Your task to perform on an android device: Open CNN.com Image 0: 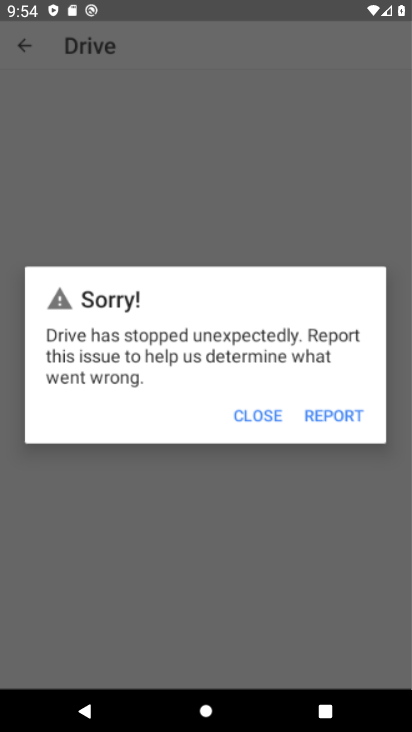
Step 0: press home button
Your task to perform on an android device: Open CNN.com Image 1: 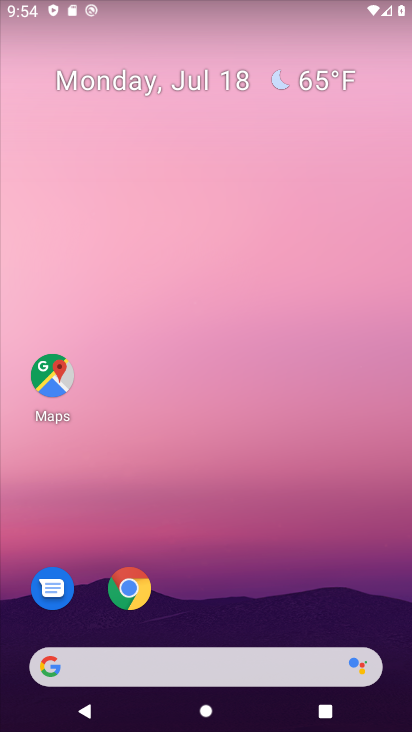
Step 1: click (42, 677)
Your task to perform on an android device: Open CNN.com Image 2: 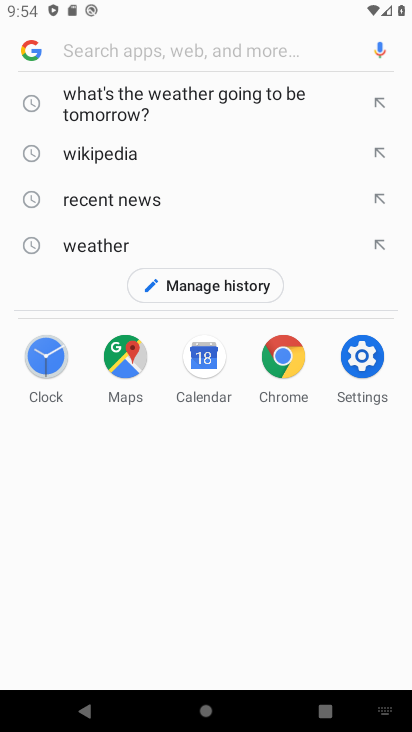
Step 2: type "CNN.com"
Your task to perform on an android device: Open CNN.com Image 3: 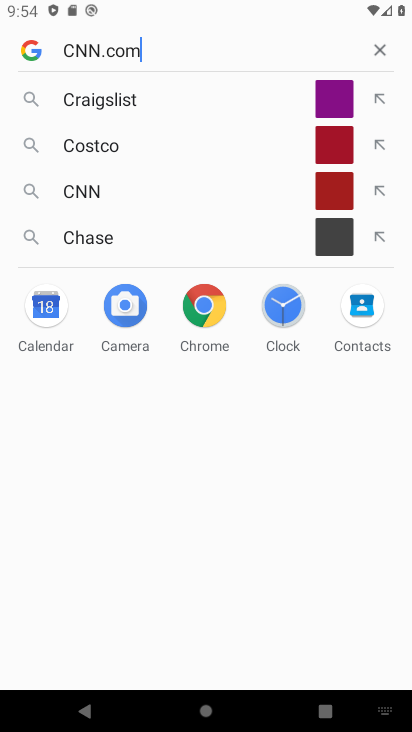
Step 3: press enter
Your task to perform on an android device: Open CNN.com Image 4: 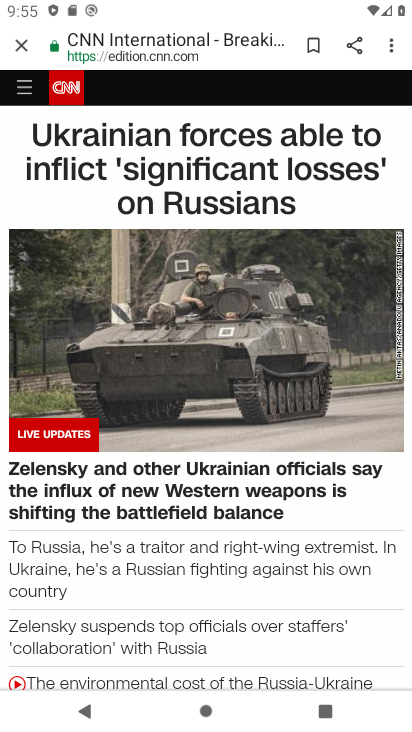
Step 4: task complete